Your task to perform on an android device: change the upload size in google photos Image 0: 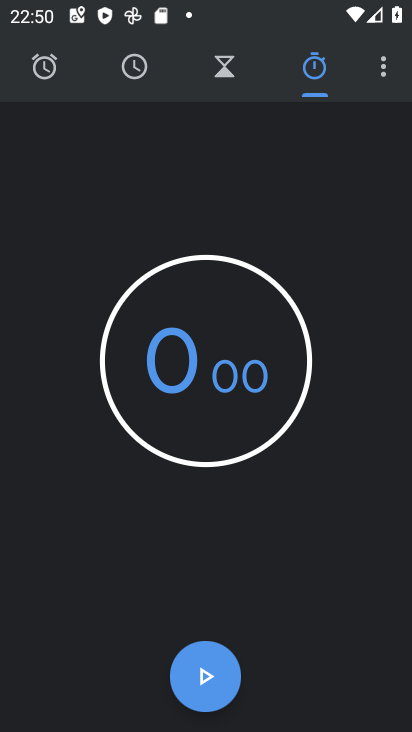
Step 0: press home button
Your task to perform on an android device: change the upload size in google photos Image 1: 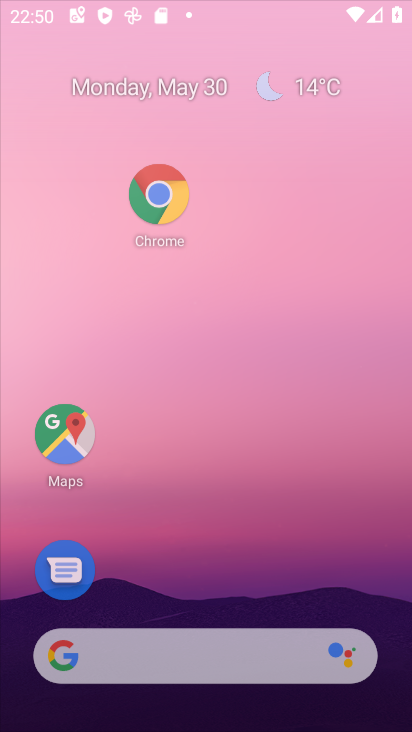
Step 1: drag from (220, 648) to (246, 72)
Your task to perform on an android device: change the upload size in google photos Image 2: 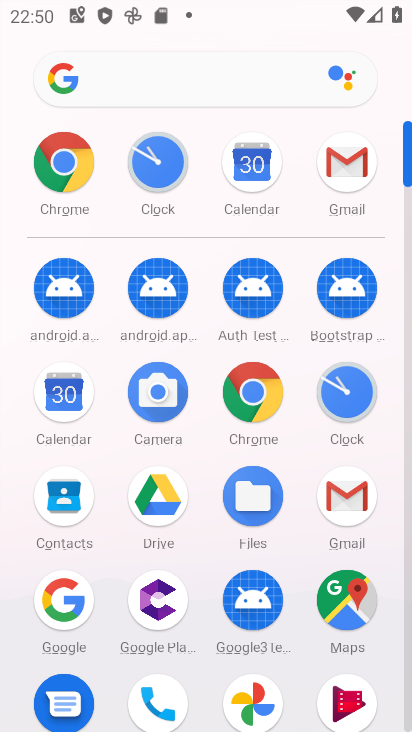
Step 2: click (261, 688)
Your task to perform on an android device: change the upload size in google photos Image 3: 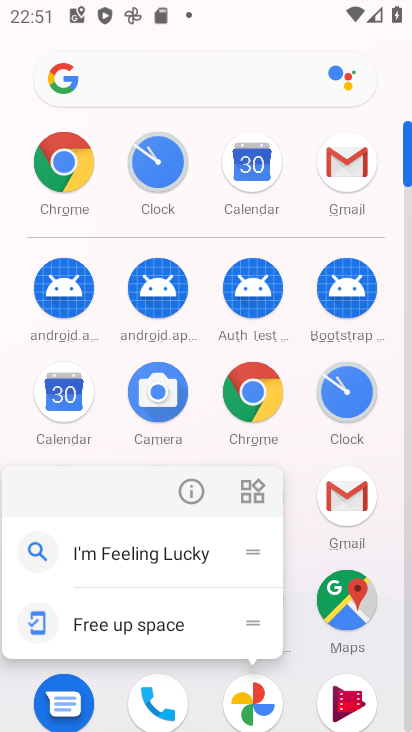
Step 3: click (182, 483)
Your task to perform on an android device: change the upload size in google photos Image 4: 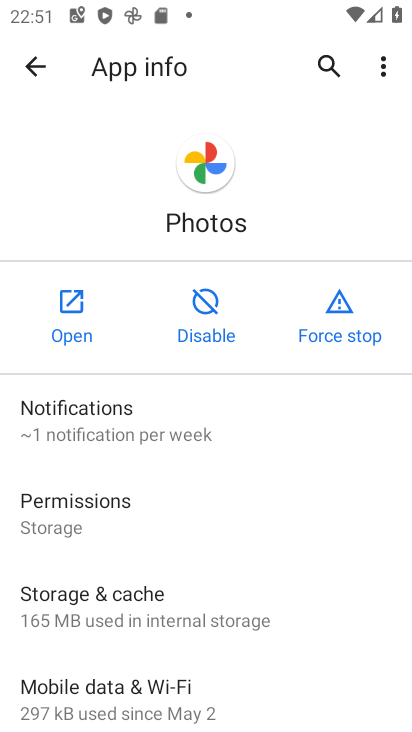
Step 4: click (76, 307)
Your task to perform on an android device: change the upload size in google photos Image 5: 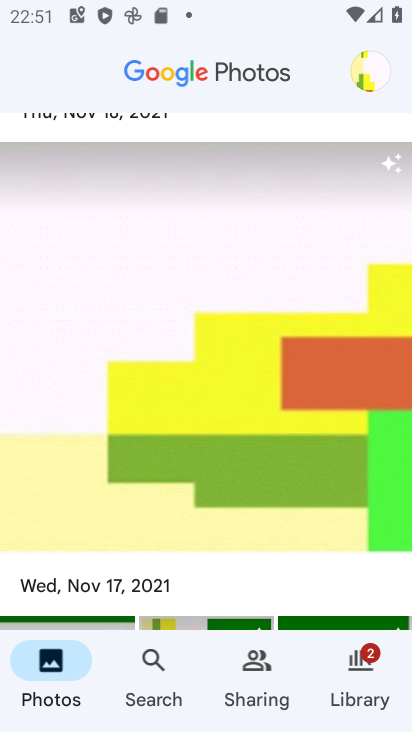
Step 5: click (383, 70)
Your task to perform on an android device: change the upload size in google photos Image 6: 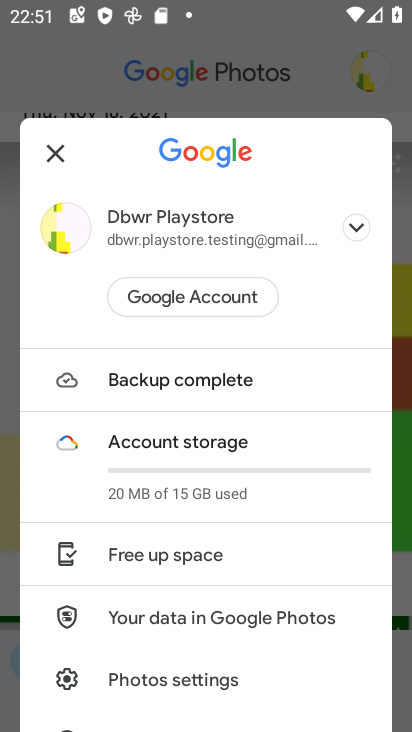
Step 6: click (147, 666)
Your task to perform on an android device: change the upload size in google photos Image 7: 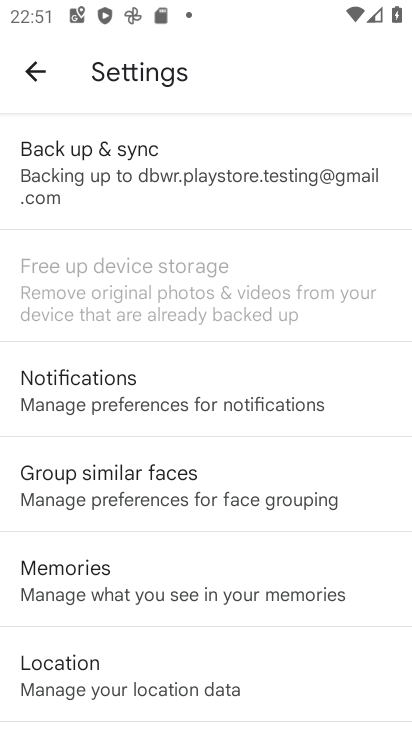
Step 7: click (91, 164)
Your task to perform on an android device: change the upload size in google photos Image 8: 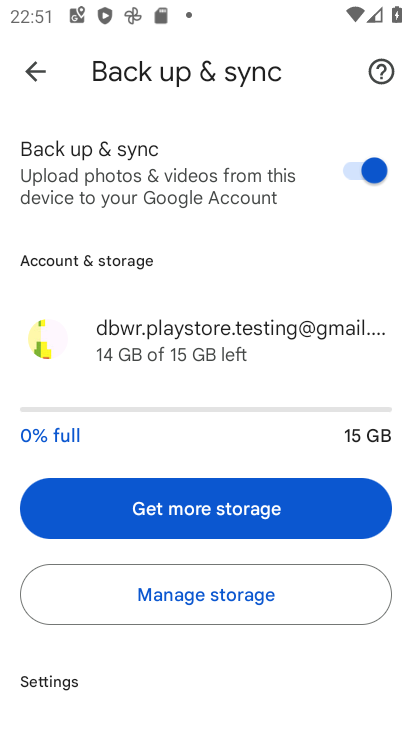
Step 8: drag from (199, 435) to (296, 91)
Your task to perform on an android device: change the upload size in google photos Image 9: 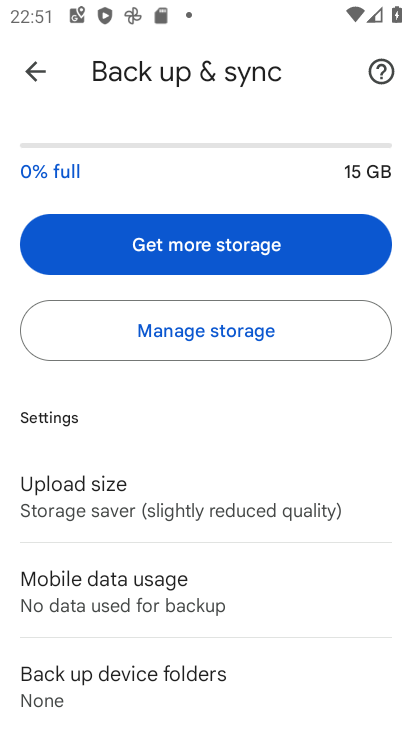
Step 9: click (134, 488)
Your task to perform on an android device: change the upload size in google photos Image 10: 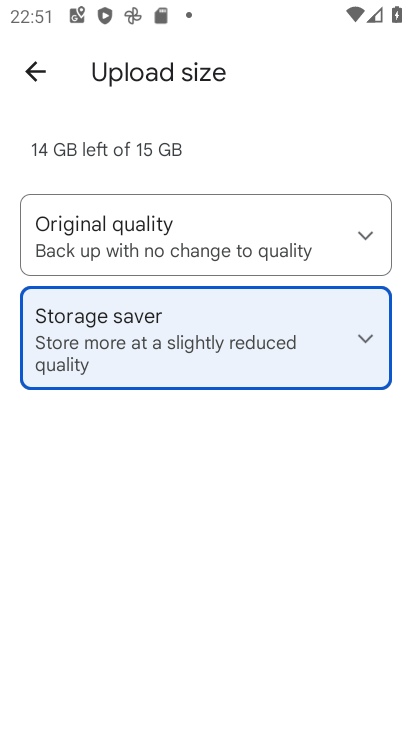
Step 10: click (226, 244)
Your task to perform on an android device: change the upload size in google photos Image 11: 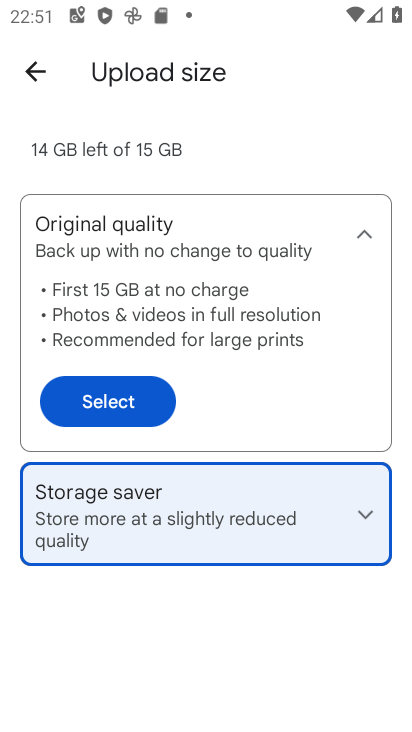
Step 11: click (126, 396)
Your task to perform on an android device: change the upload size in google photos Image 12: 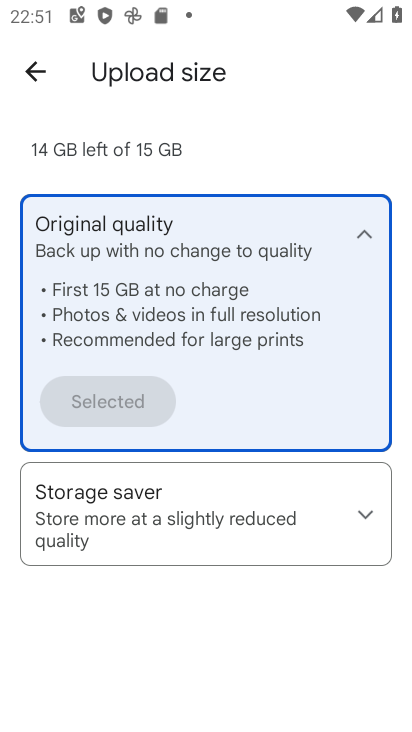
Step 12: task complete